Your task to perform on an android device: delete browsing data in the chrome app Image 0: 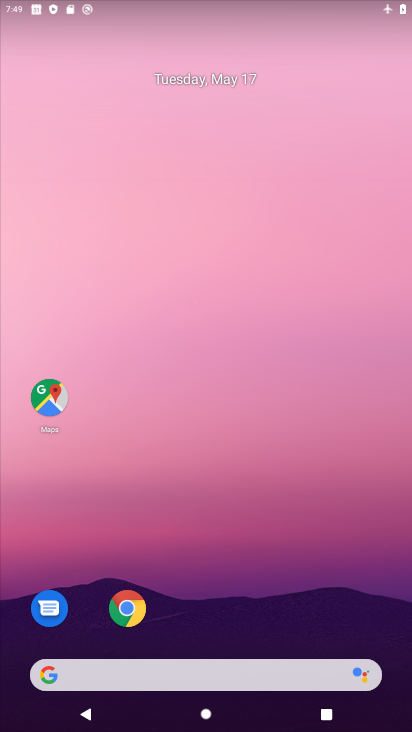
Step 0: click (123, 612)
Your task to perform on an android device: delete browsing data in the chrome app Image 1: 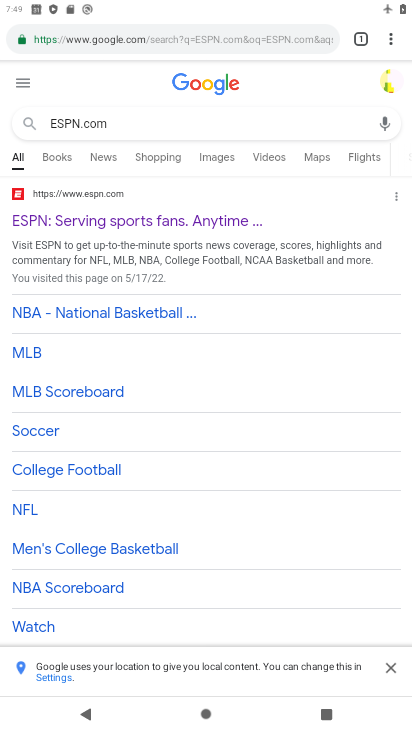
Step 1: click (392, 40)
Your task to perform on an android device: delete browsing data in the chrome app Image 2: 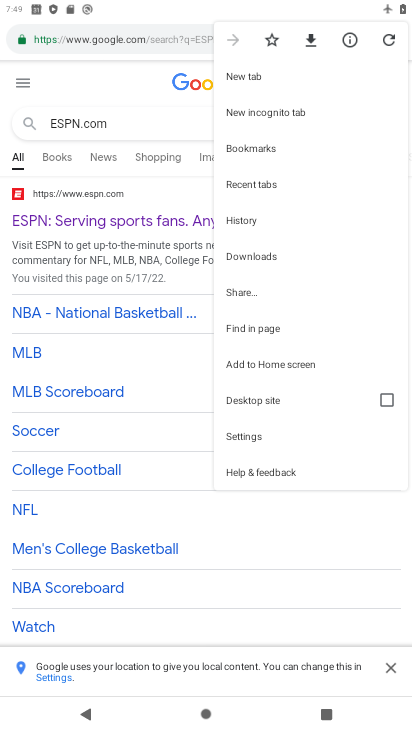
Step 2: click (257, 223)
Your task to perform on an android device: delete browsing data in the chrome app Image 3: 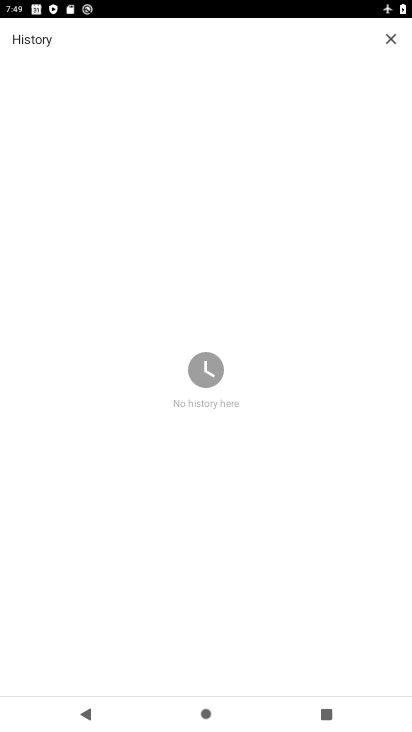
Step 3: task complete